Your task to perform on an android device: change the upload size in google photos Image 0: 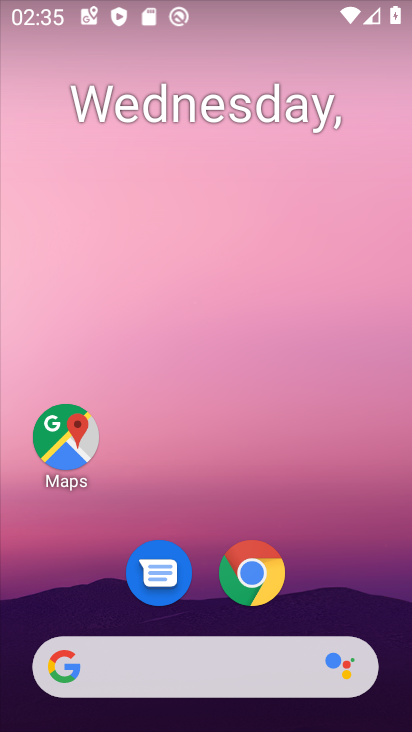
Step 0: drag from (325, 600) to (247, 3)
Your task to perform on an android device: change the upload size in google photos Image 1: 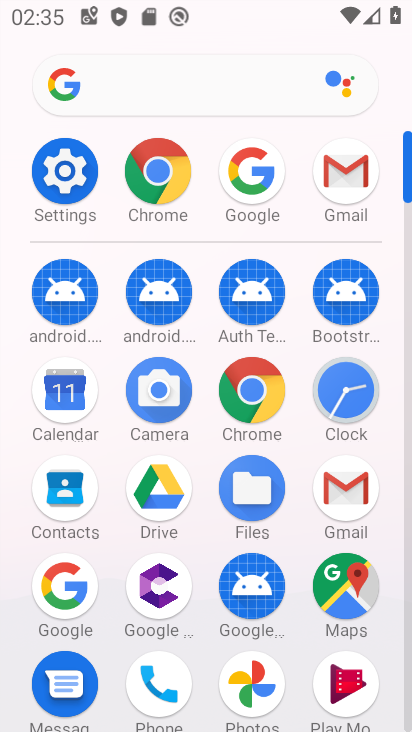
Step 1: drag from (204, 647) to (206, 412)
Your task to perform on an android device: change the upload size in google photos Image 2: 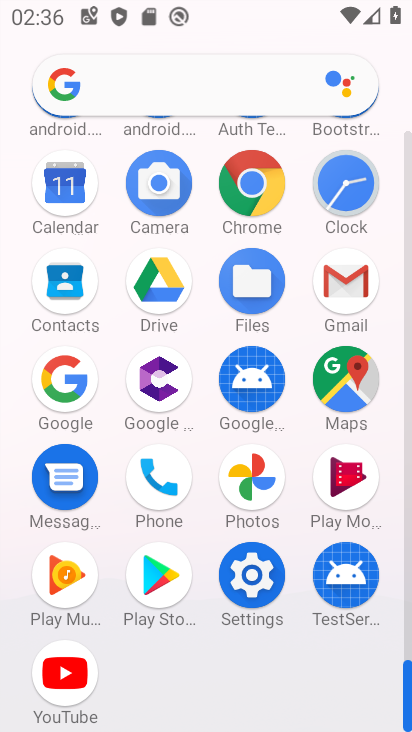
Step 2: click (251, 480)
Your task to perform on an android device: change the upload size in google photos Image 3: 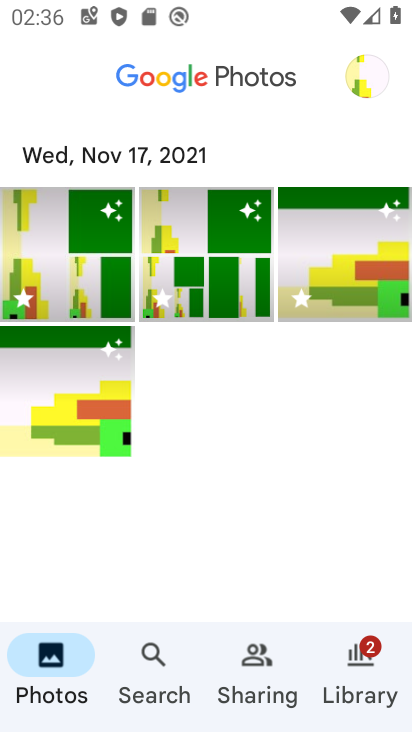
Step 3: click (365, 79)
Your task to perform on an android device: change the upload size in google photos Image 4: 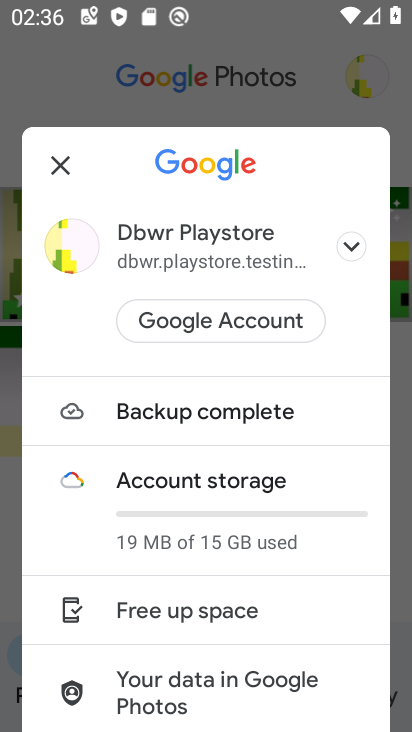
Step 4: drag from (199, 619) to (216, 301)
Your task to perform on an android device: change the upload size in google photos Image 5: 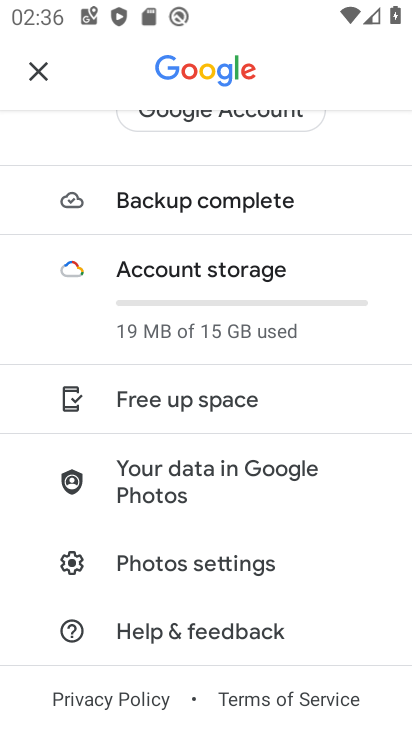
Step 5: click (172, 563)
Your task to perform on an android device: change the upload size in google photos Image 6: 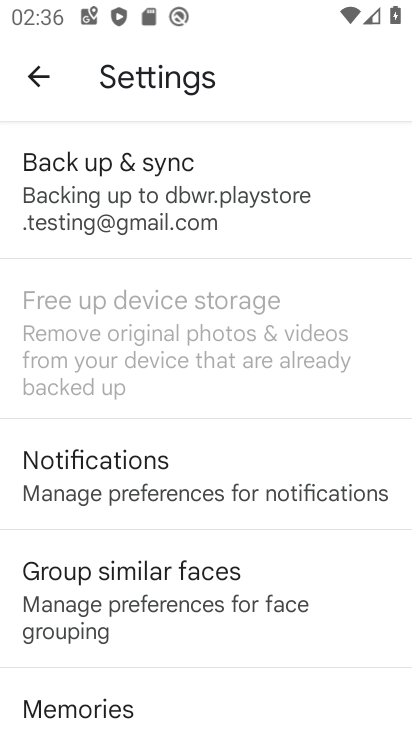
Step 6: click (67, 166)
Your task to perform on an android device: change the upload size in google photos Image 7: 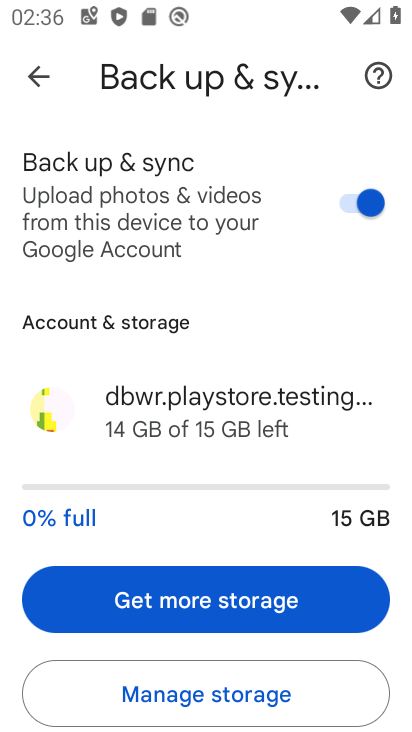
Step 7: drag from (162, 543) to (185, 416)
Your task to perform on an android device: change the upload size in google photos Image 8: 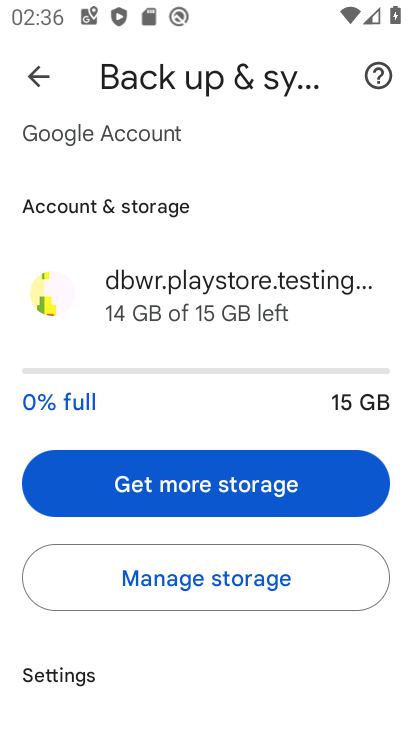
Step 8: drag from (148, 661) to (260, 373)
Your task to perform on an android device: change the upload size in google photos Image 9: 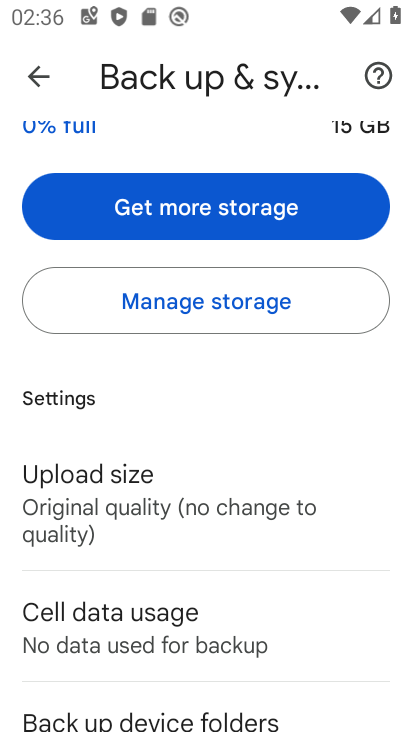
Step 9: click (146, 499)
Your task to perform on an android device: change the upload size in google photos Image 10: 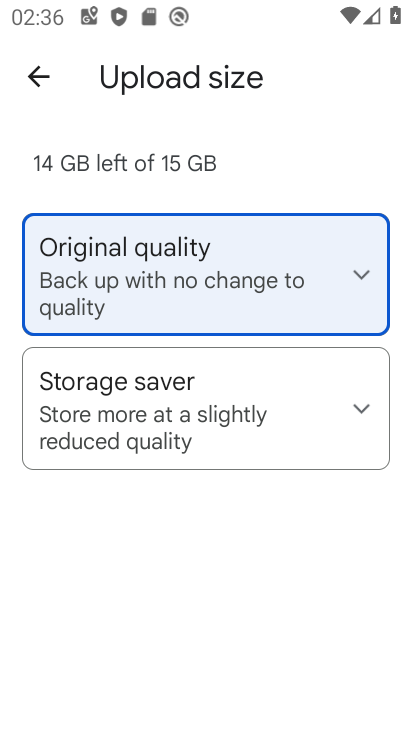
Step 10: click (147, 405)
Your task to perform on an android device: change the upload size in google photos Image 11: 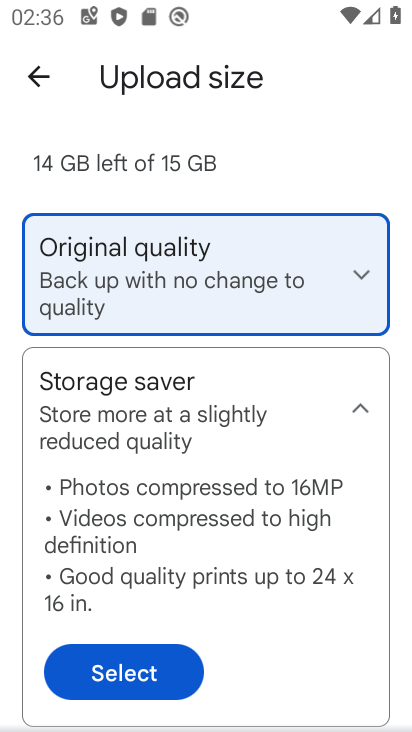
Step 11: click (130, 658)
Your task to perform on an android device: change the upload size in google photos Image 12: 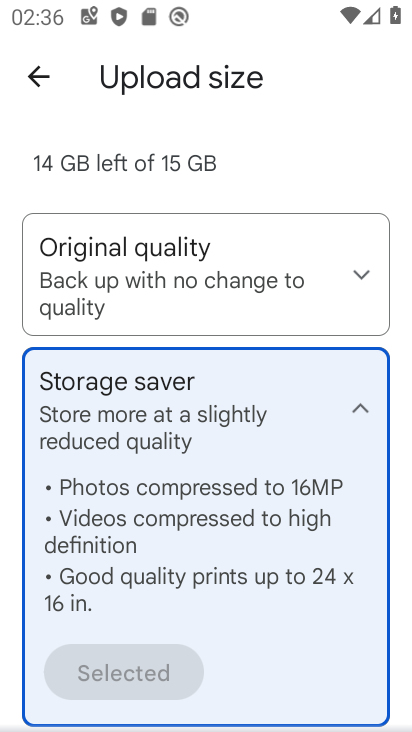
Step 12: click (351, 405)
Your task to perform on an android device: change the upload size in google photos Image 13: 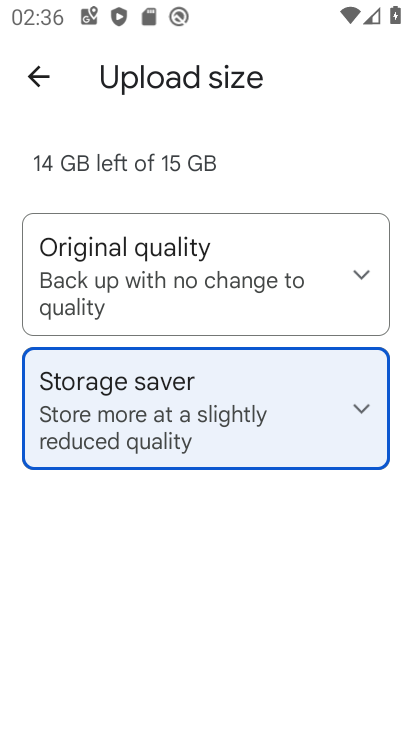
Step 13: task complete